Your task to perform on an android device: Go to Amazon Image 0: 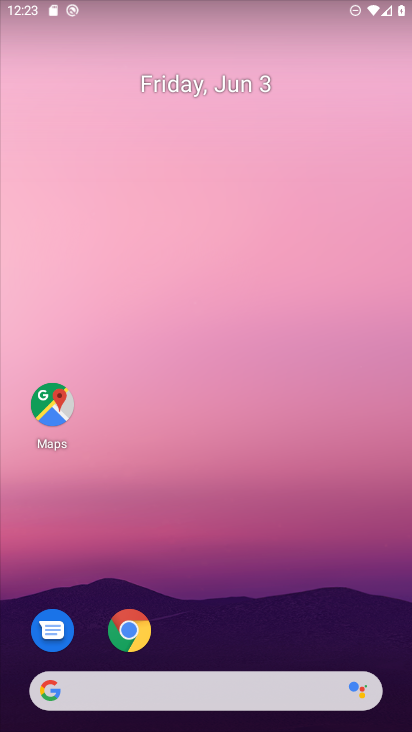
Step 0: click (193, 187)
Your task to perform on an android device: Go to Amazon Image 1: 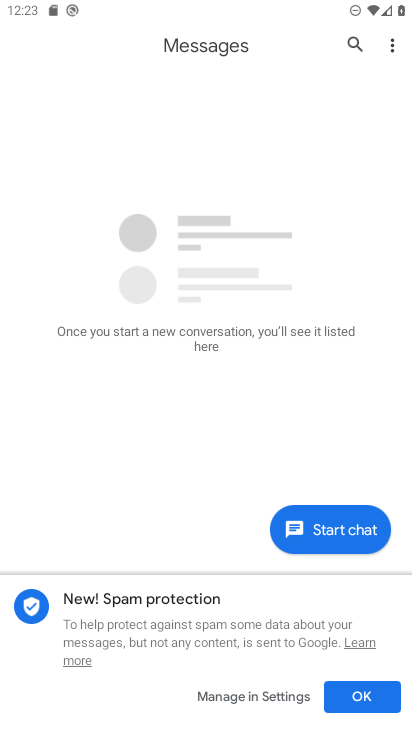
Step 1: press home button
Your task to perform on an android device: Go to Amazon Image 2: 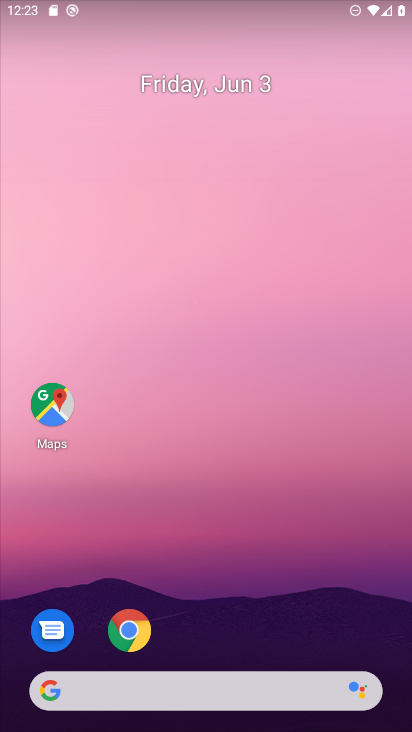
Step 2: click (143, 621)
Your task to perform on an android device: Go to Amazon Image 3: 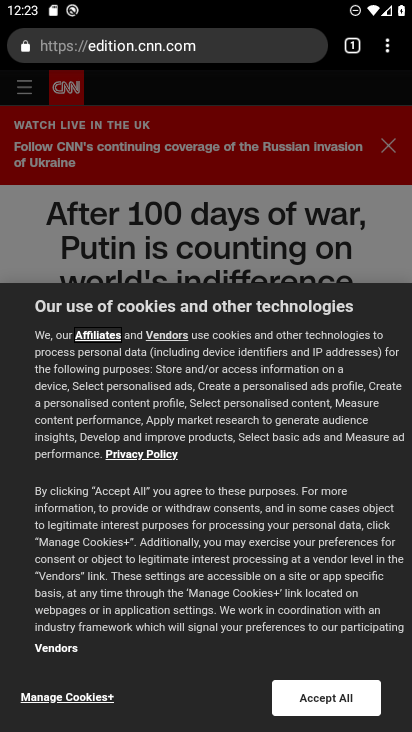
Step 3: click (358, 55)
Your task to perform on an android device: Go to Amazon Image 4: 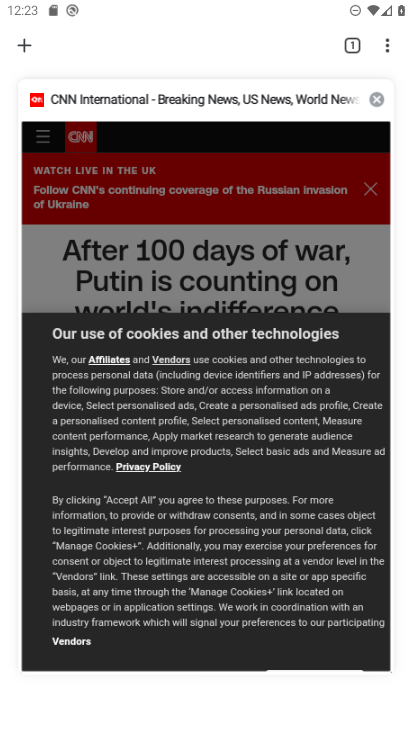
Step 4: click (19, 50)
Your task to perform on an android device: Go to Amazon Image 5: 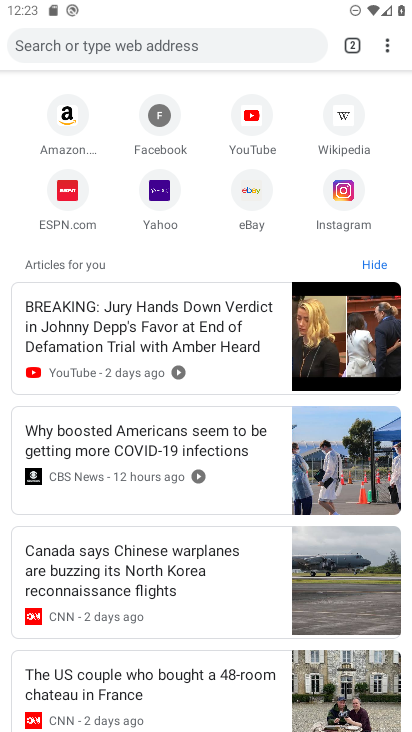
Step 5: click (65, 132)
Your task to perform on an android device: Go to Amazon Image 6: 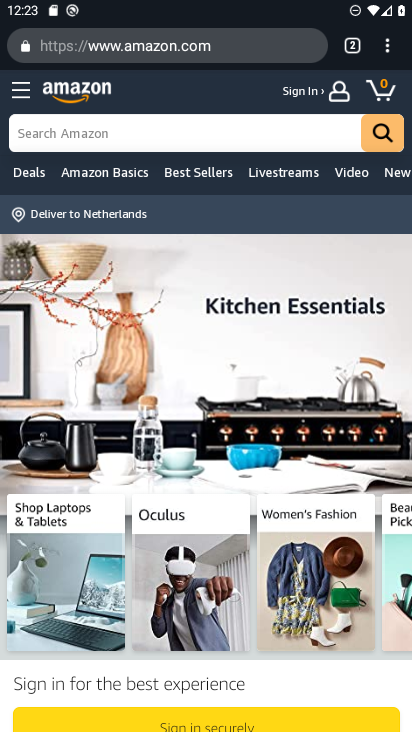
Step 6: task complete